Your task to perform on an android device: allow cookies in the chrome app Image 0: 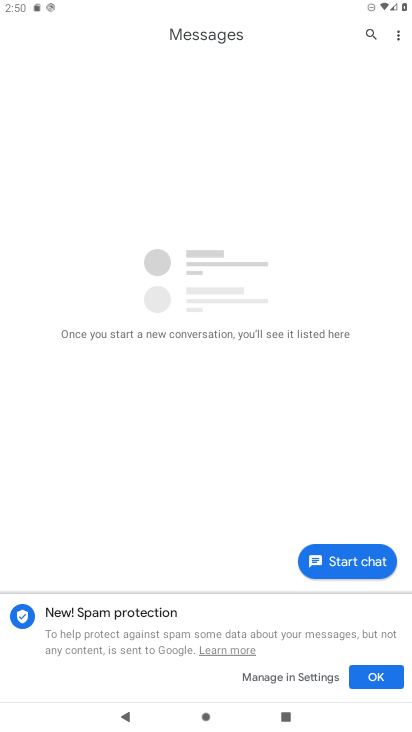
Step 0: press home button
Your task to perform on an android device: allow cookies in the chrome app Image 1: 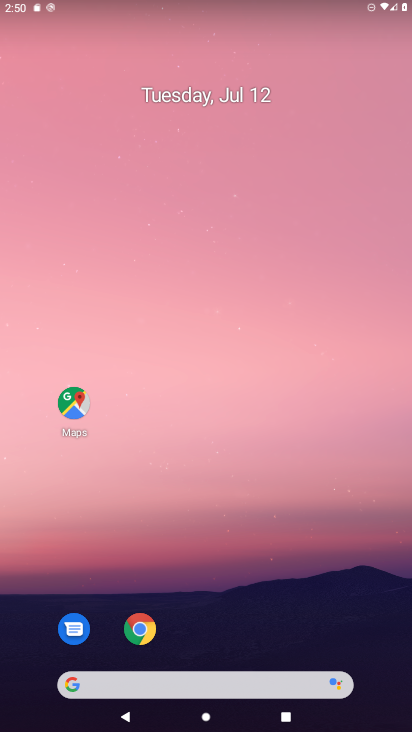
Step 1: click (139, 629)
Your task to perform on an android device: allow cookies in the chrome app Image 2: 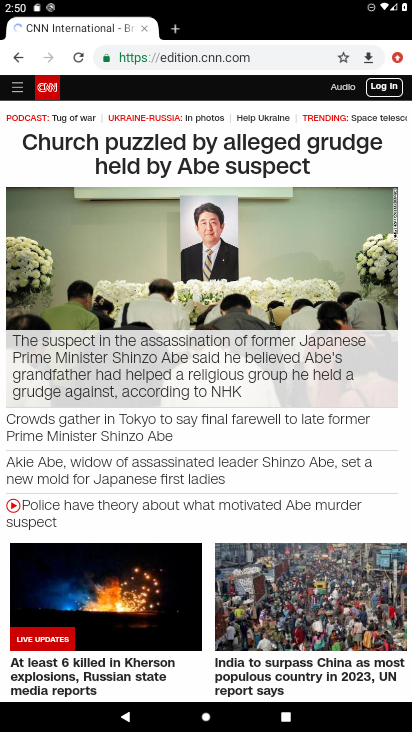
Step 2: click (396, 58)
Your task to perform on an android device: allow cookies in the chrome app Image 3: 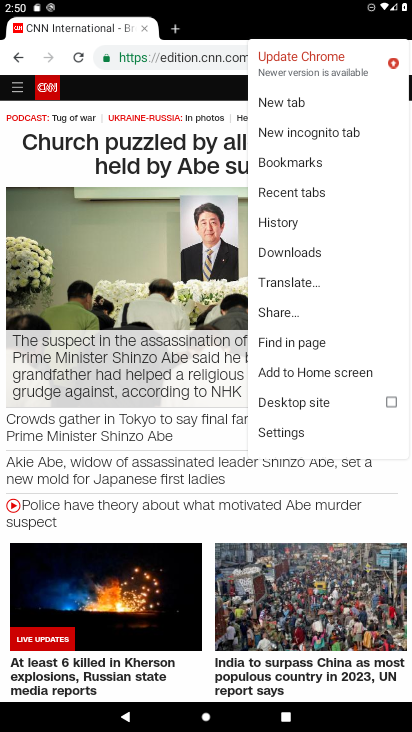
Step 3: click (291, 433)
Your task to perform on an android device: allow cookies in the chrome app Image 4: 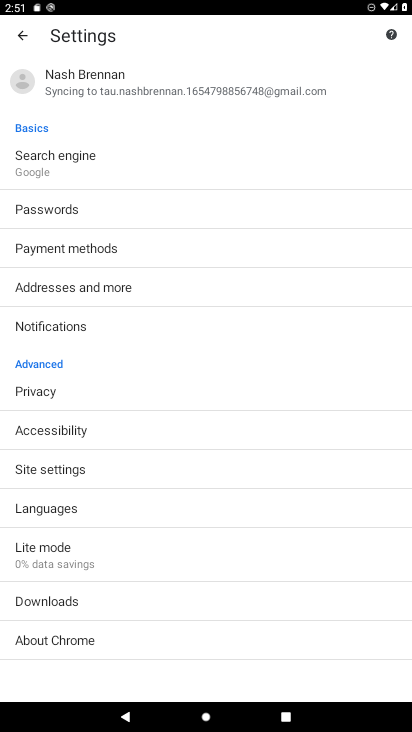
Step 4: click (72, 468)
Your task to perform on an android device: allow cookies in the chrome app Image 5: 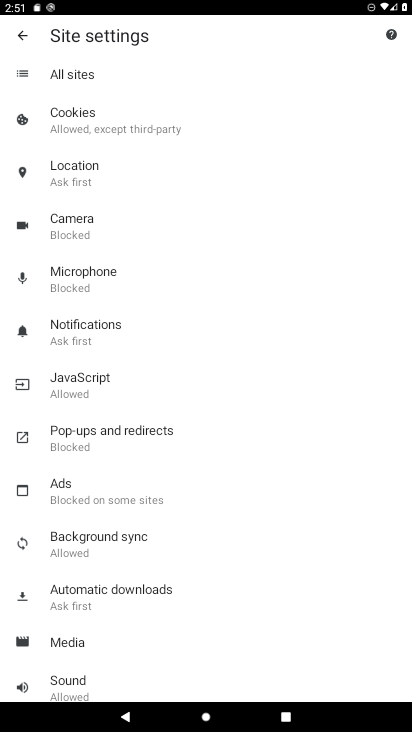
Step 5: click (97, 125)
Your task to perform on an android device: allow cookies in the chrome app Image 6: 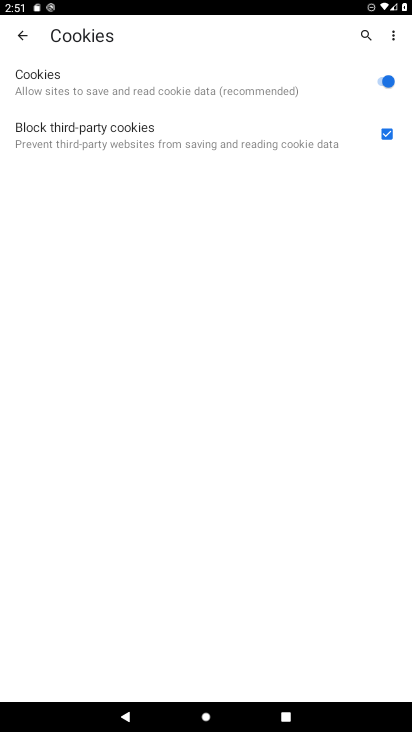
Step 6: task complete